Your task to perform on an android device: Open sound settings Image 0: 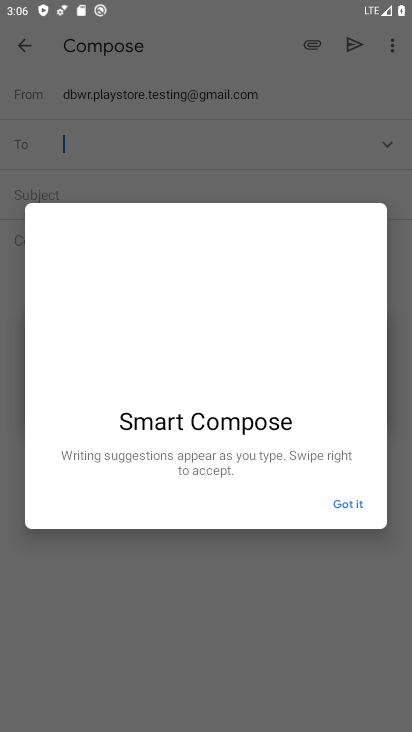
Step 0: press home button
Your task to perform on an android device: Open sound settings Image 1: 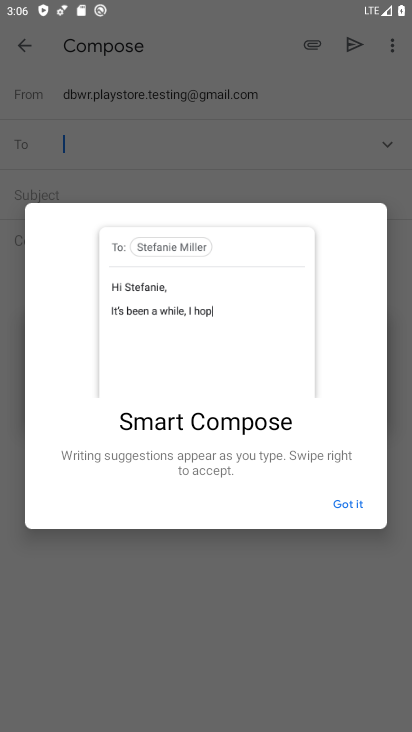
Step 1: drag from (358, 525) to (310, 67)
Your task to perform on an android device: Open sound settings Image 2: 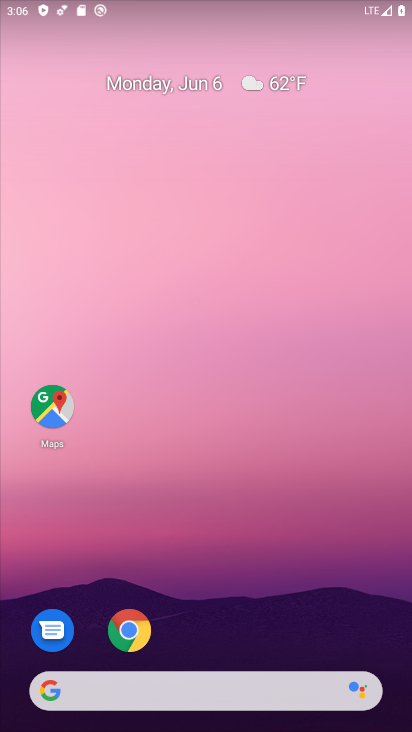
Step 2: drag from (275, 523) to (292, 70)
Your task to perform on an android device: Open sound settings Image 3: 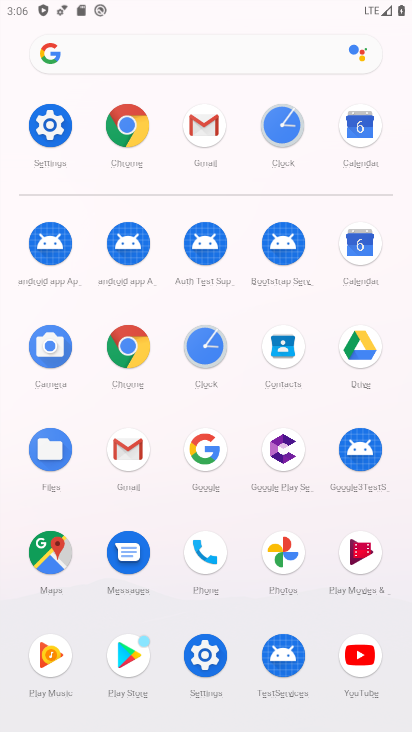
Step 3: click (42, 145)
Your task to perform on an android device: Open sound settings Image 4: 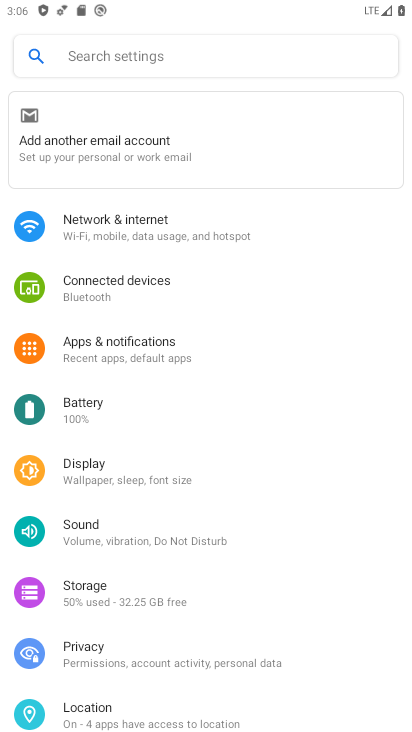
Step 4: drag from (130, 517) to (142, 473)
Your task to perform on an android device: Open sound settings Image 5: 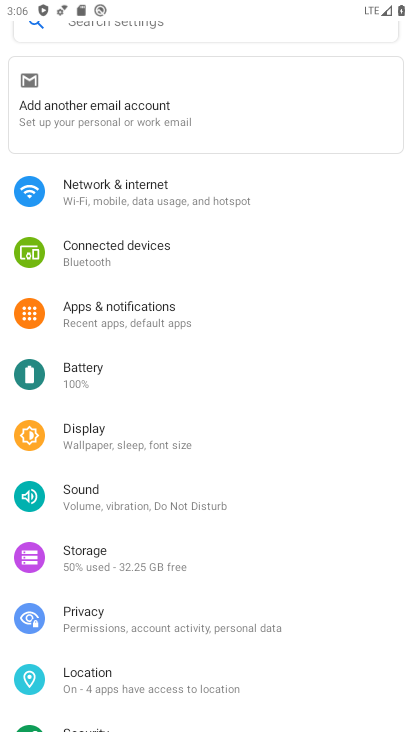
Step 5: click (127, 491)
Your task to perform on an android device: Open sound settings Image 6: 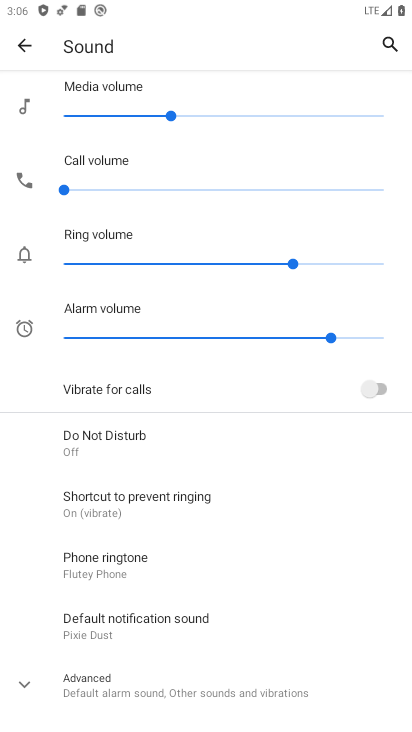
Step 6: task complete